Your task to perform on an android device: toggle sleep mode Image 0: 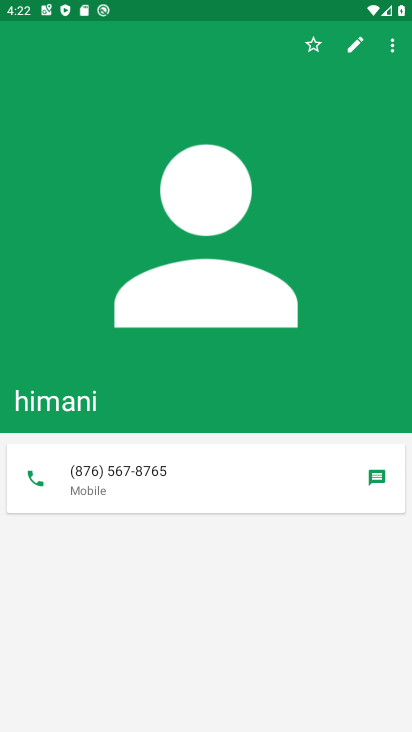
Step 0: press home button
Your task to perform on an android device: toggle sleep mode Image 1: 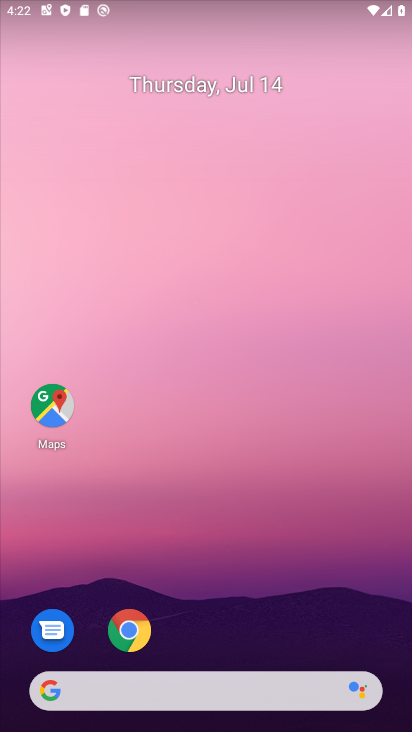
Step 1: drag from (251, 692) to (335, 102)
Your task to perform on an android device: toggle sleep mode Image 2: 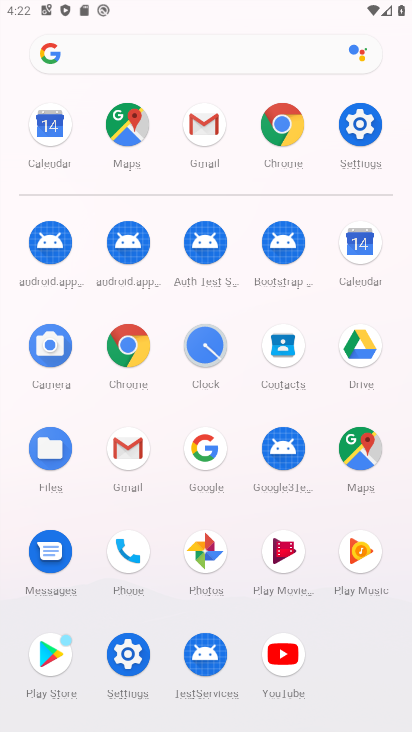
Step 2: click (351, 113)
Your task to perform on an android device: toggle sleep mode Image 3: 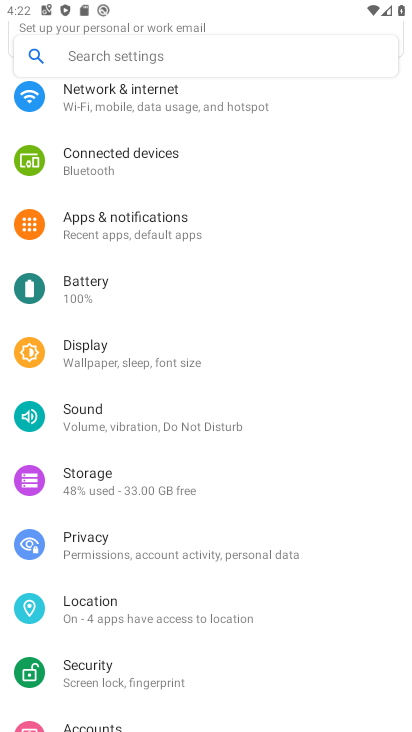
Step 3: click (167, 347)
Your task to perform on an android device: toggle sleep mode Image 4: 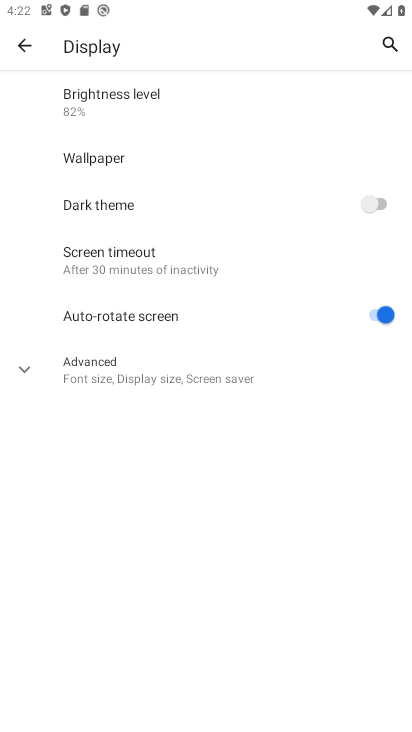
Step 4: task complete